Your task to perform on an android device: turn off priority inbox in the gmail app Image 0: 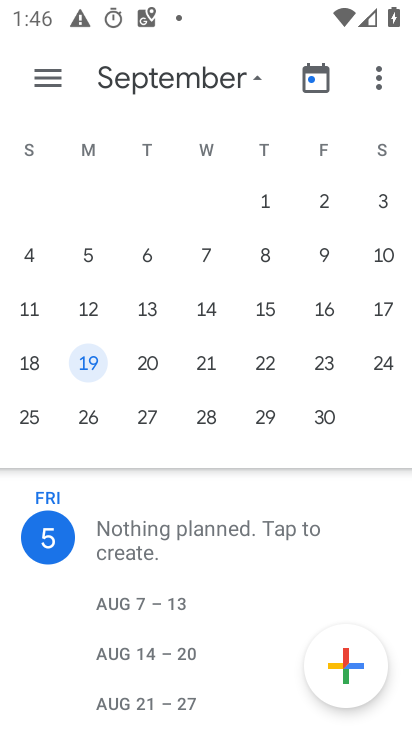
Step 0: press home button
Your task to perform on an android device: turn off priority inbox in the gmail app Image 1: 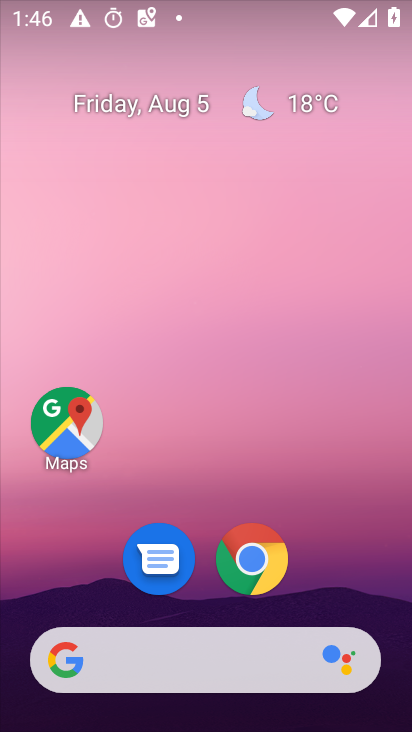
Step 1: drag from (68, 555) to (208, 40)
Your task to perform on an android device: turn off priority inbox in the gmail app Image 2: 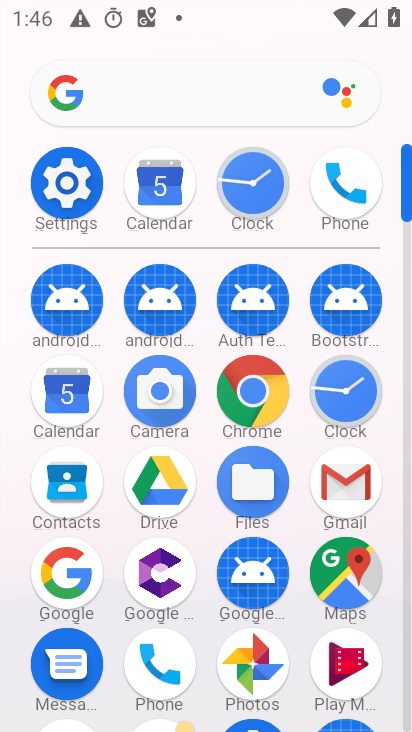
Step 2: click (335, 480)
Your task to perform on an android device: turn off priority inbox in the gmail app Image 3: 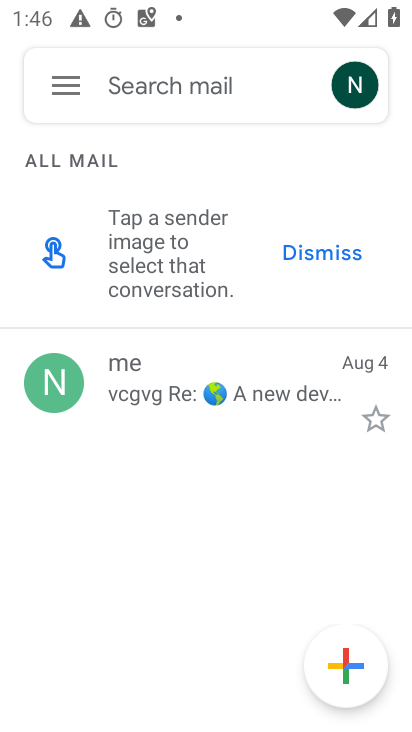
Step 3: click (85, 89)
Your task to perform on an android device: turn off priority inbox in the gmail app Image 4: 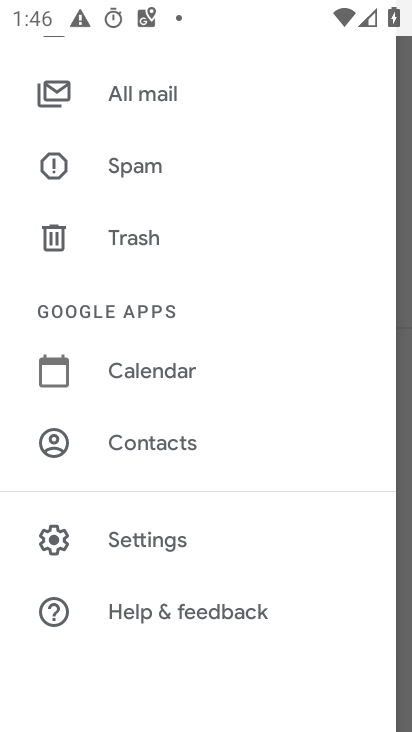
Step 4: click (143, 542)
Your task to perform on an android device: turn off priority inbox in the gmail app Image 5: 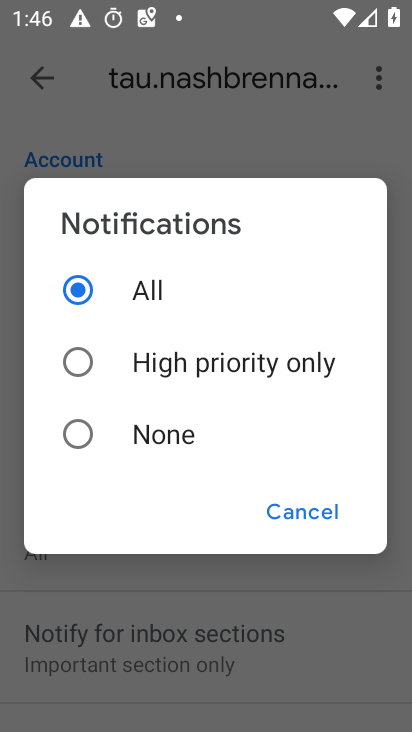
Step 5: click (316, 506)
Your task to perform on an android device: turn off priority inbox in the gmail app Image 6: 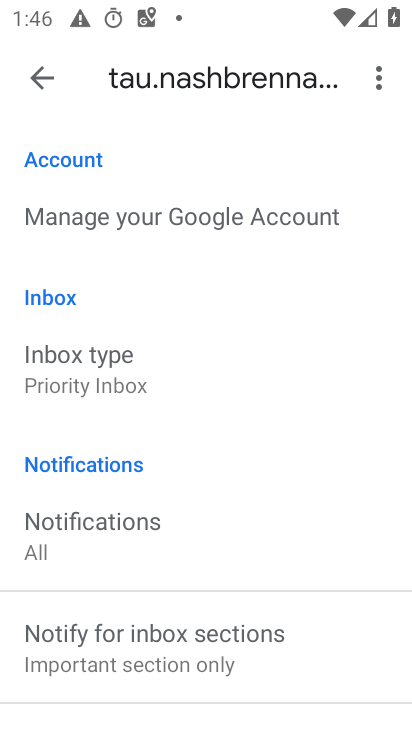
Step 6: task complete